Your task to perform on an android device: turn off notifications settings in the gmail app Image 0: 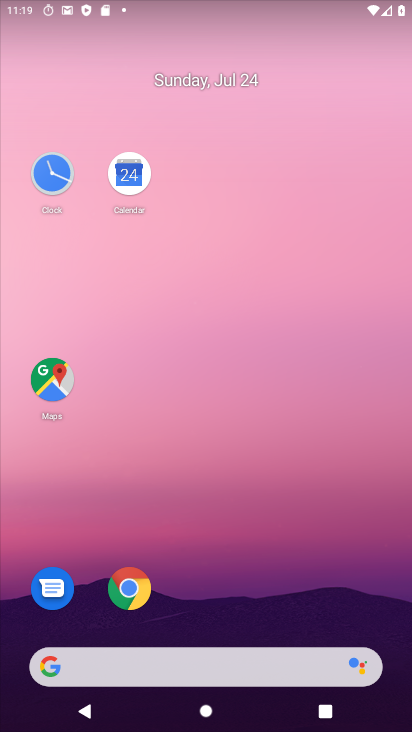
Step 0: drag from (256, 588) to (237, 150)
Your task to perform on an android device: turn off notifications settings in the gmail app Image 1: 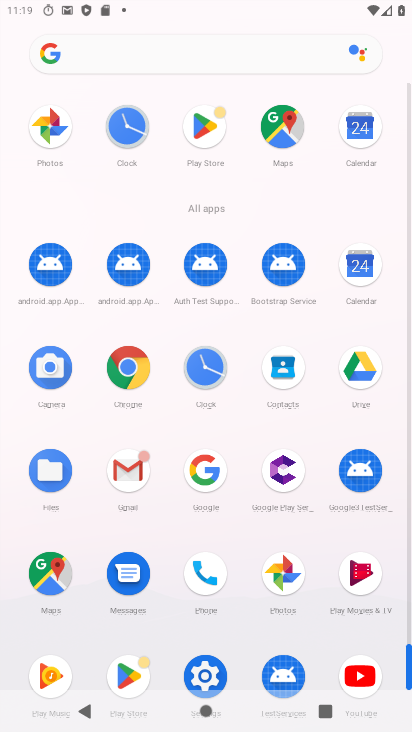
Step 1: drag from (133, 470) to (76, 273)
Your task to perform on an android device: turn off notifications settings in the gmail app Image 2: 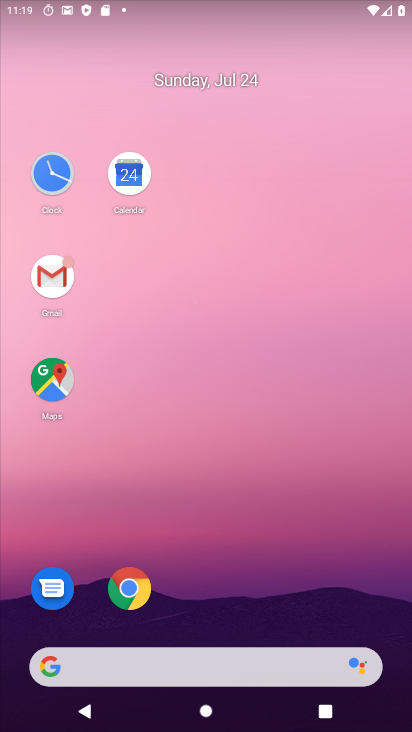
Step 2: click (51, 271)
Your task to perform on an android device: turn off notifications settings in the gmail app Image 3: 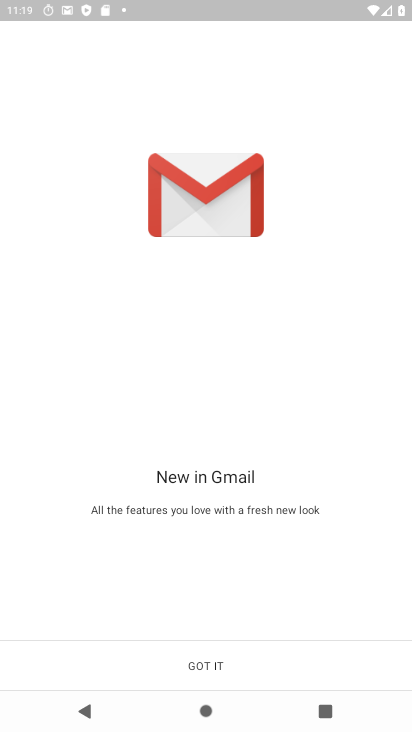
Step 3: click (196, 670)
Your task to perform on an android device: turn off notifications settings in the gmail app Image 4: 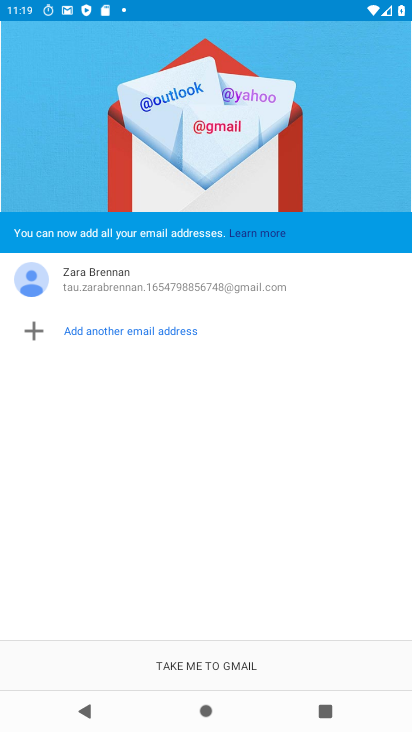
Step 4: click (196, 670)
Your task to perform on an android device: turn off notifications settings in the gmail app Image 5: 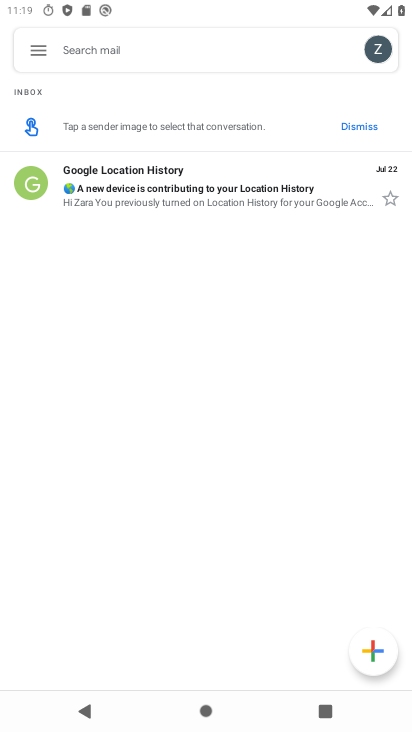
Step 5: click (33, 47)
Your task to perform on an android device: turn off notifications settings in the gmail app Image 6: 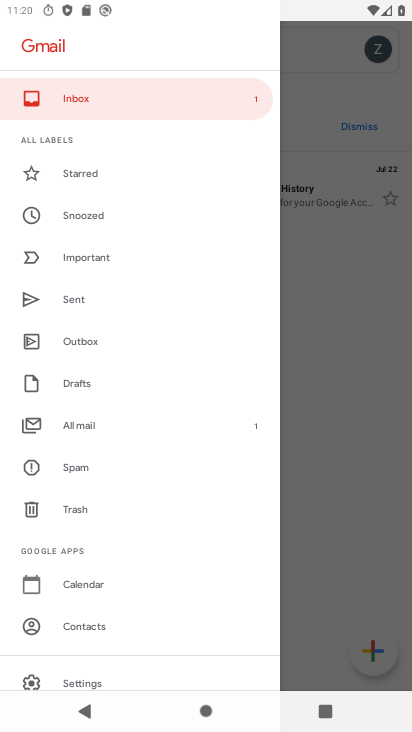
Step 6: click (93, 672)
Your task to perform on an android device: turn off notifications settings in the gmail app Image 7: 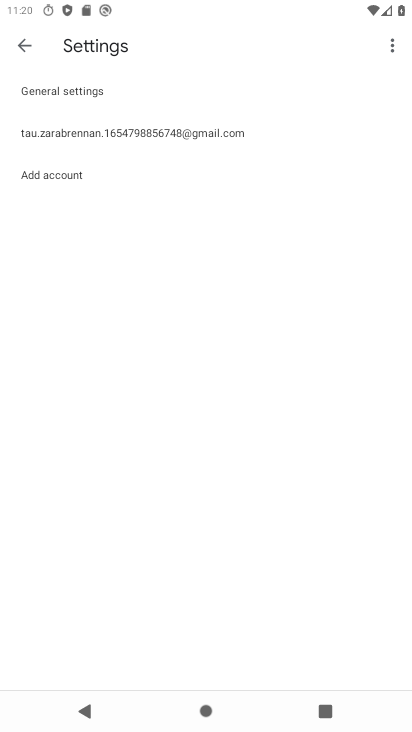
Step 7: click (174, 131)
Your task to perform on an android device: turn off notifications settings in the gmail app Image 8: 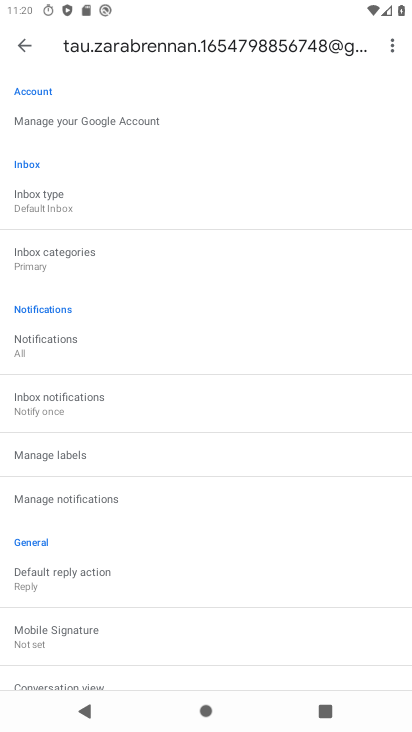
Step 8: click (118, 349)
Your task to perform on an android device: turn off notifications settings in the gmail app Image 9: 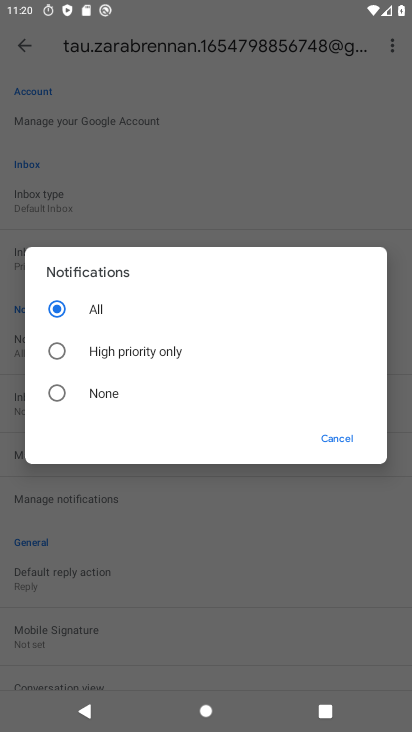
Step 9: click (100, 397)
Your task to perform on an android device: turn off notifications settings in the gmail app Image 10: 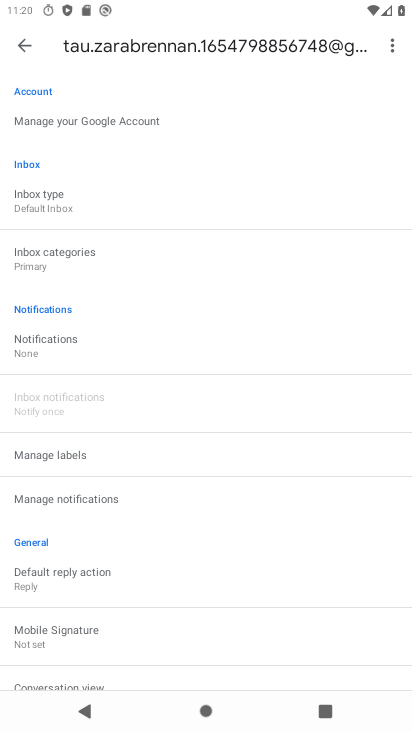
Step 10: task complete